Your task to perform on an android device: Go to location settings Image 0: 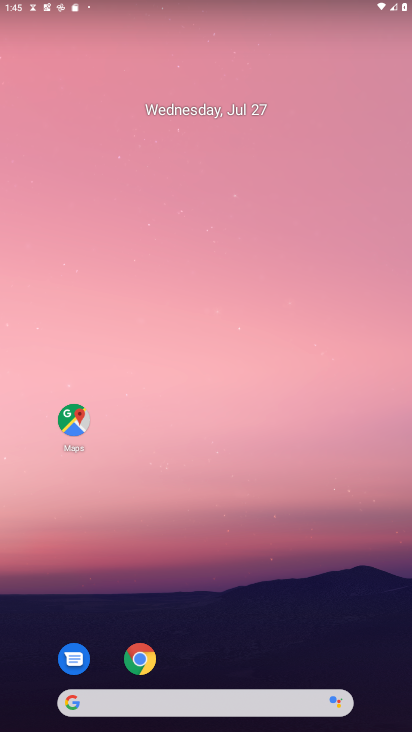
Step 0: drag from (291, 54) to (322, 0)
Your task to perform on an android device: Go to location settings Image 1: 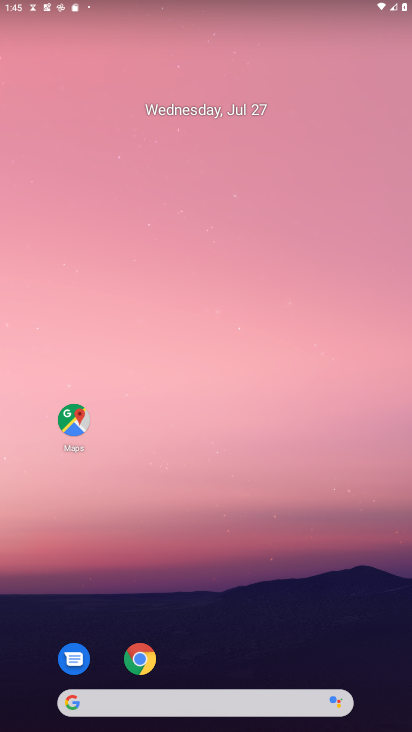
Step 1: drag from (19, 544) to (203, 94)
Your task to perform on an android device: Go to location settings Image 2: 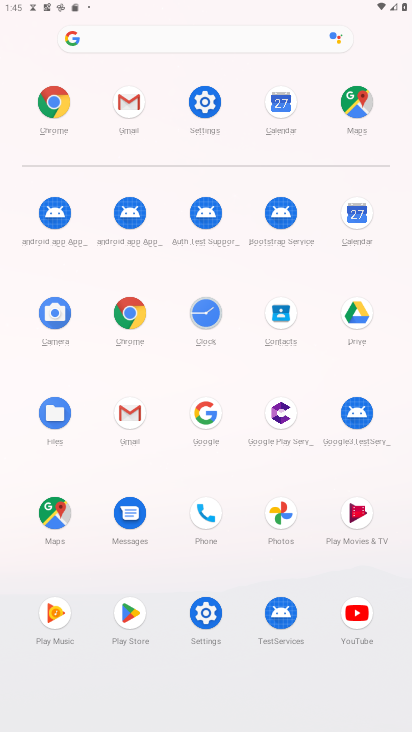
Step 2: click (195, 117)
Your task to perform on an android device: Go to location settings Image 3: 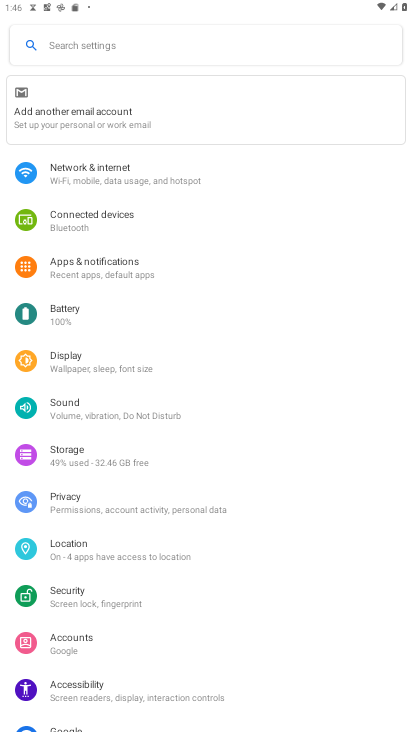
Step 3: click (128, 553)
Your task to perform on an android device: Go to location settings Image 4: 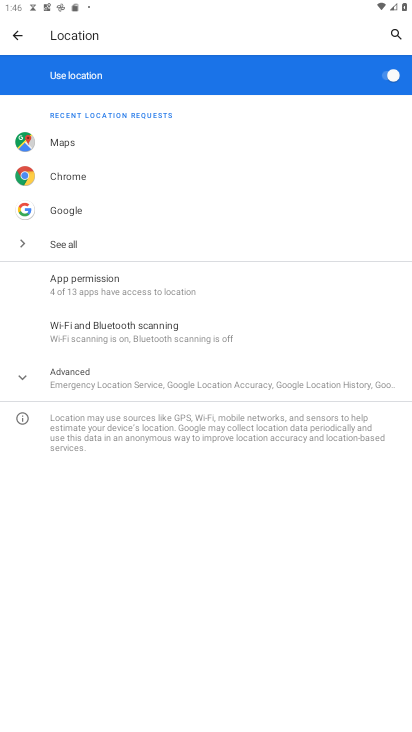
Step 4: task complete